Your task to perform on an android device: turn notification dots on Image 0: 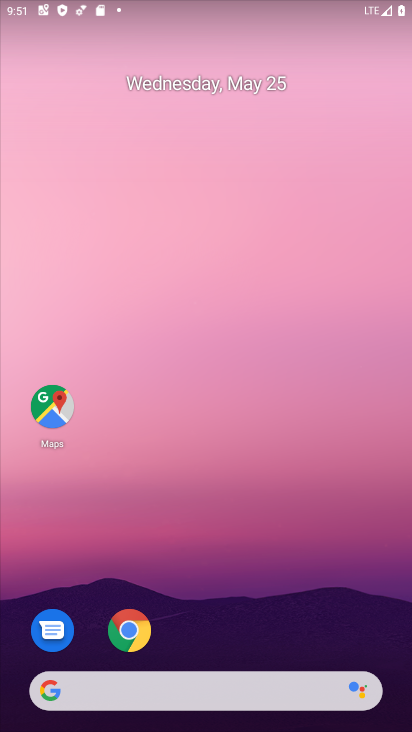
Step 0: click (123, 635)
Your task to perform on an android device: turn notification dots on Image 1: 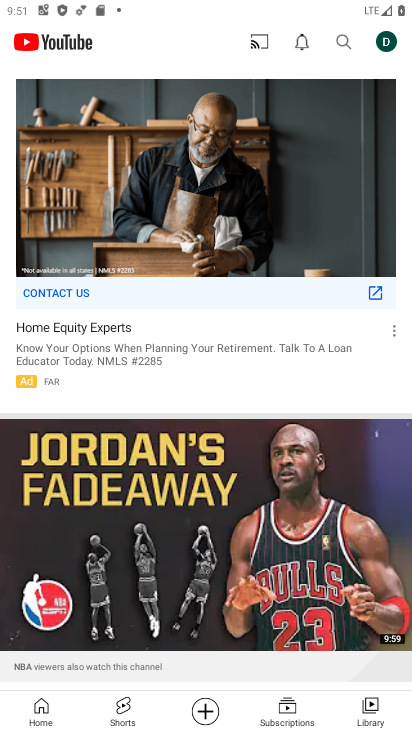
Step 1: press home button
Your task to perform on an android device: turn notification dots on Image 2: 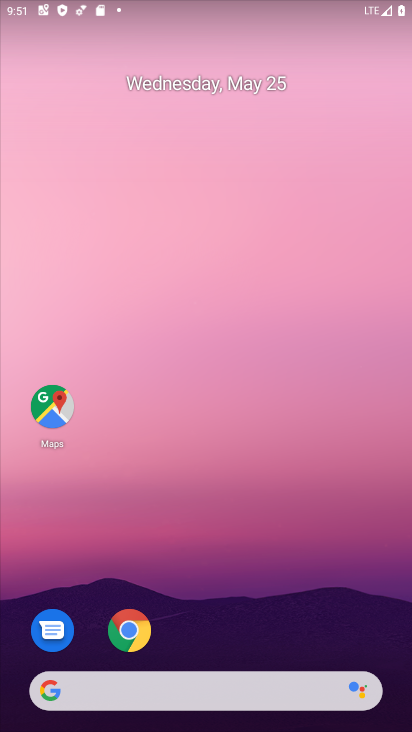
Step 2: drag from (192, 635) to (274, 165)
Your task to perform on an android device: turn notification dots on Image 3: 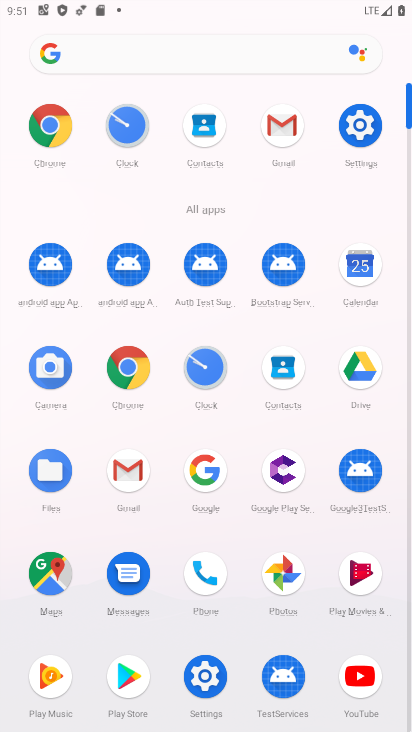
Step 3: click (365, 125)
Your task to perform on an android device: turn notification dots on Image 4: 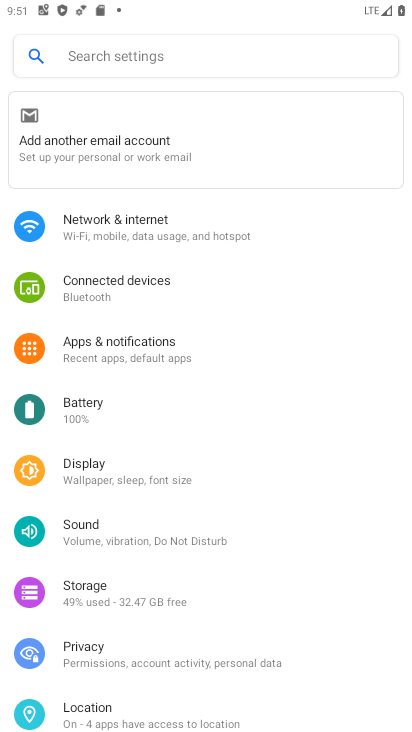
Step 4: click (162, 355)
Your task to perform on an android device: turn notification dots on Image 5: 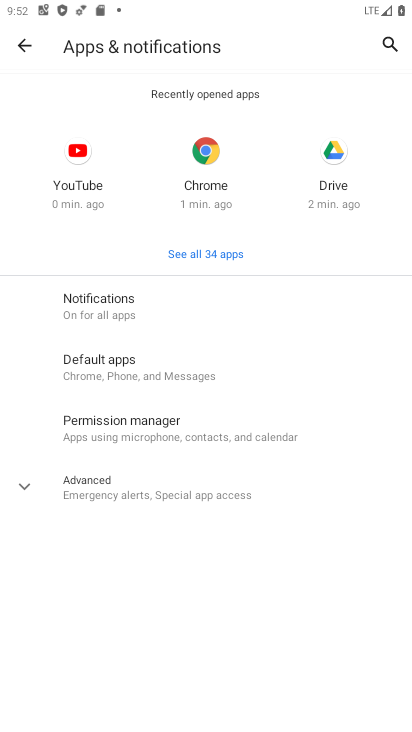
Step 5: click (143, 303)
Your task to perform on an android device: turn notification dots on Image 6: 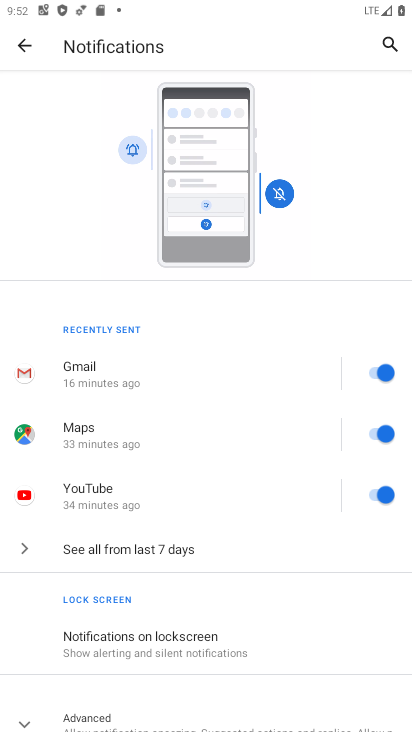
Step 6: drag from (207, 624) to (227, 323)
Your task to perform on an android device: turn notification dots on Image 7: 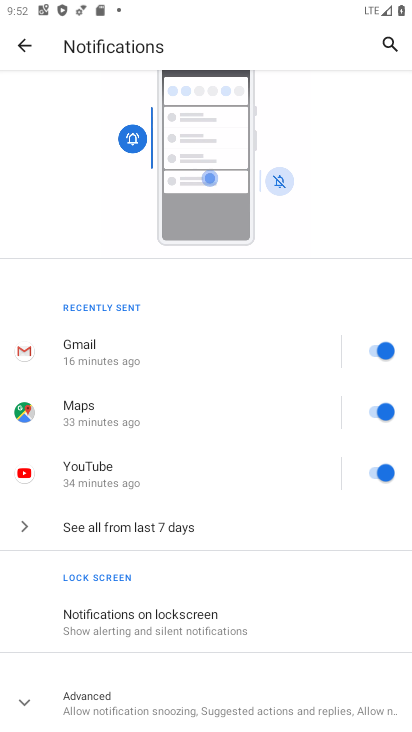
Step 7: click (94, 700)
Your task to perform on an android device: turn notification dots on Image 8: 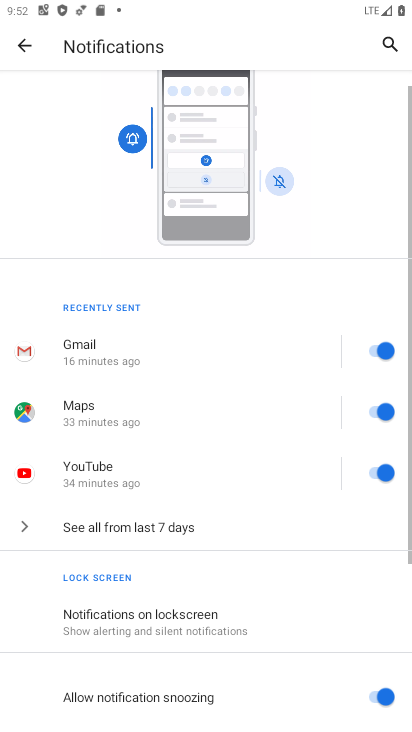
Step 8: drag from (215, 601) to (211, 161)
Your task to perform on an android device: turn notification dots on Image 9: 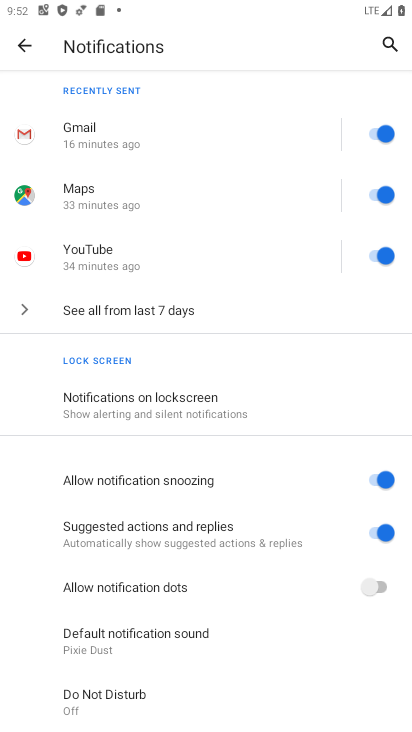
Step 9: click (369, 586)
Your task to perform on an android device: turn notification dots on Image 10: 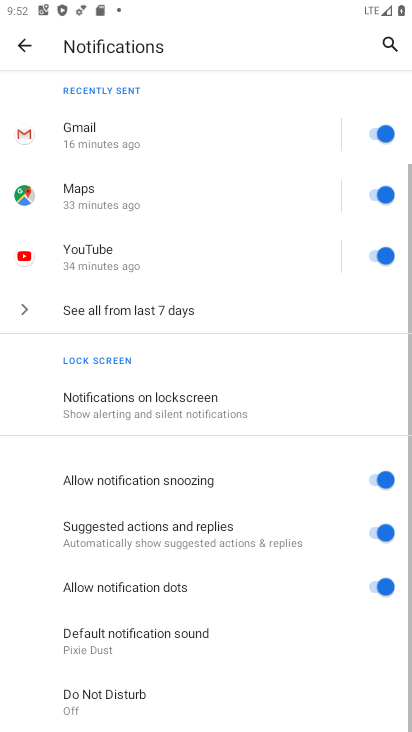
Step 10: task complete